Your task to perform on an android device: Open the calendar app, open the side menu, and click the "Day" option Image 0: 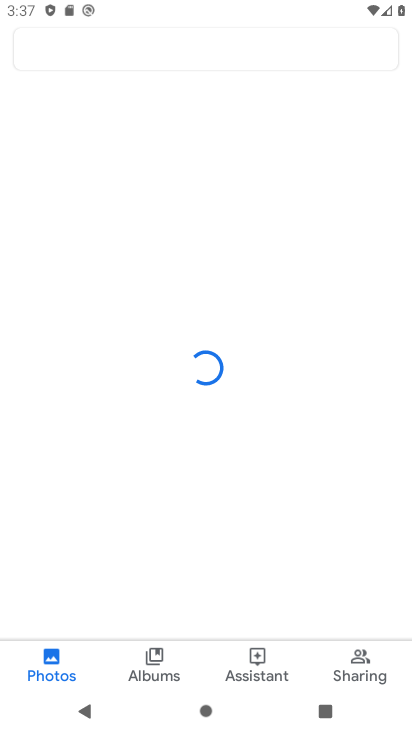
Step 0: press home button
Your task to perform on an android device: Open the calendar app, open the side menu, and click the "Day" option Image 1: 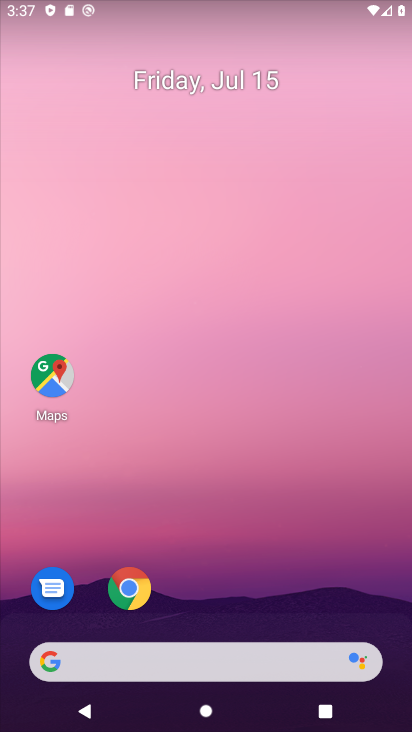
Step 1: drag from (192, 645) to (294, 201)
Your task to perform on an android device: Open the calendar app, open the side menu, and click the "Day" option Image 2: 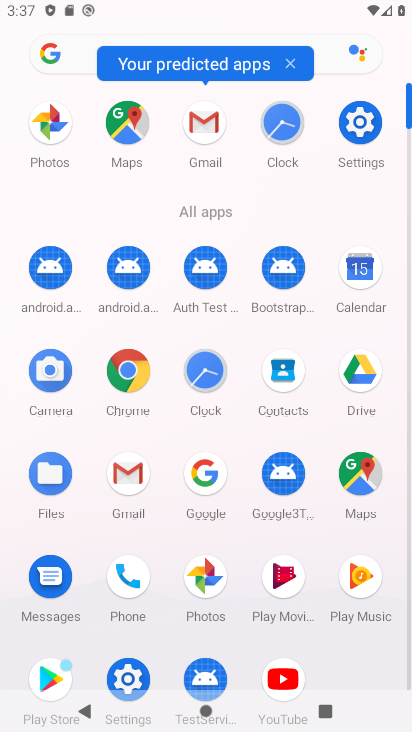
Step 2: click (368, 284)
Your task to perform on an android device: Open the calendar app, open the side menu, and click the "Day" option Image 3: 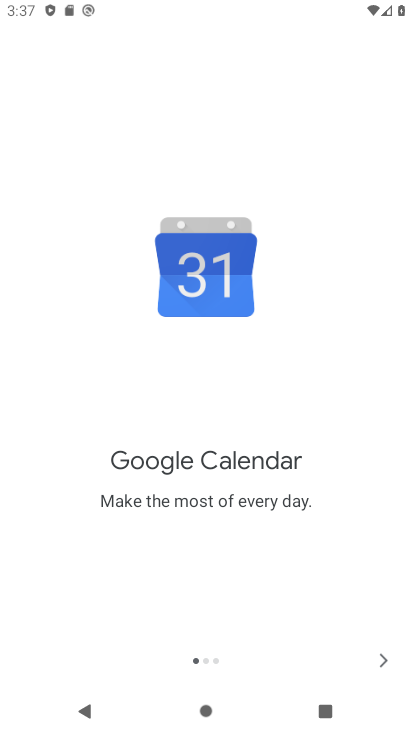
Step 3: click (379, 660)
Your task to perform on an android device: Open the calendar app, open the side menu, and click the "Day" option Image 4: 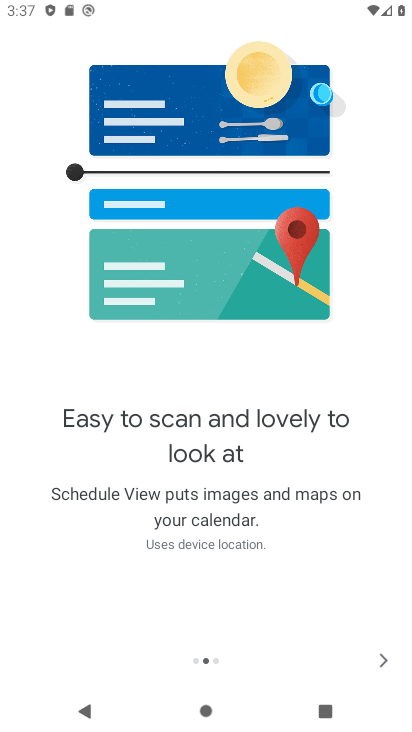
Step 4: click (381, 660)
Your task to perform on an android device: Open the calendar app, open the side menu, and click the "Day" option Image 5: 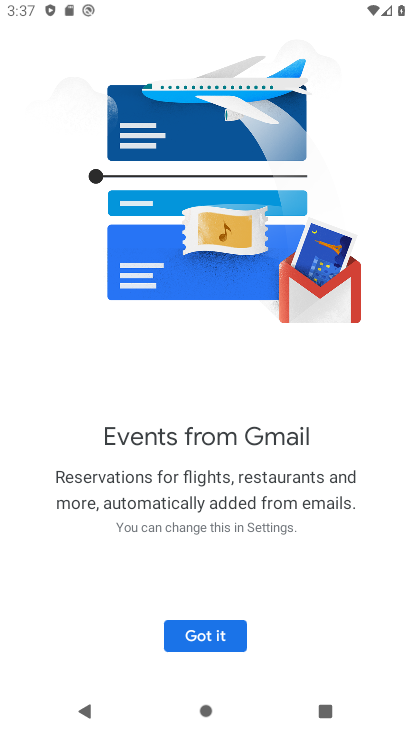
Step 5: click (213, 637)
Your task to perform on an android device: Open the calendar app, open the side menu, and click the "Day" option Image 6: 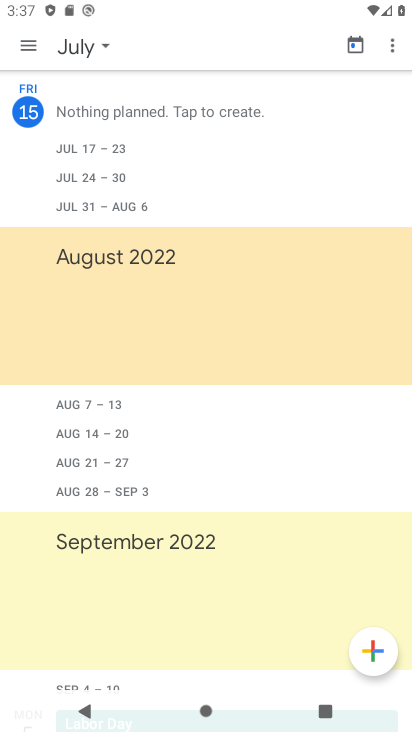
Step 6: click (39, 46)
Your task to perform on an android device: Open the calendar app, open the side menu, and click the "Day" option Image 7: 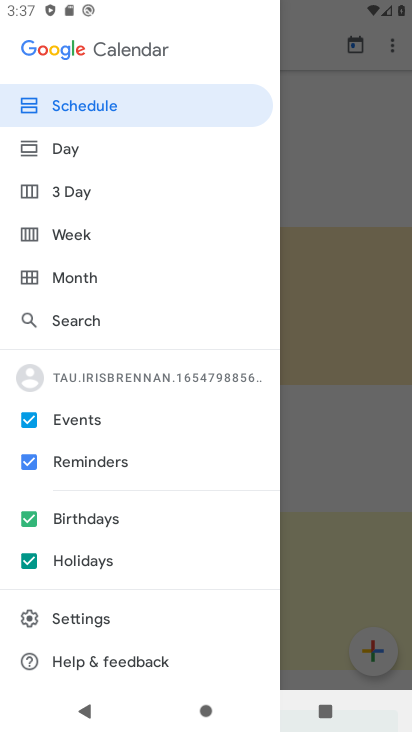
Step 7: click (95, 143)
Your task to perform on an android device: Open the calendar app, open the side menu, and click the "Day" option Image 8: 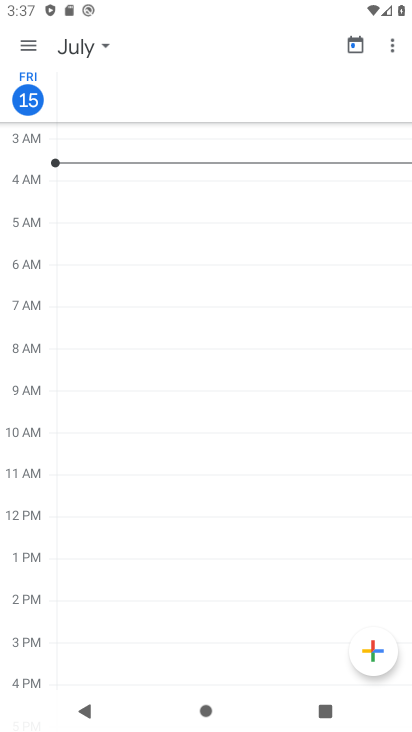
Step 8: task complete